Your task to perform on an android device: turn off data saver in the chrome app Image 0: 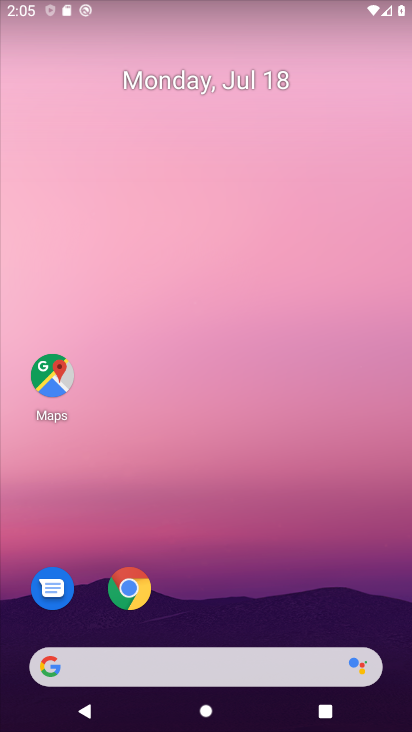
Step 0: drag from (255, 574) to (185, 147)
Your task to perform on an android device: turn off data saver in the chrome app Image 1: 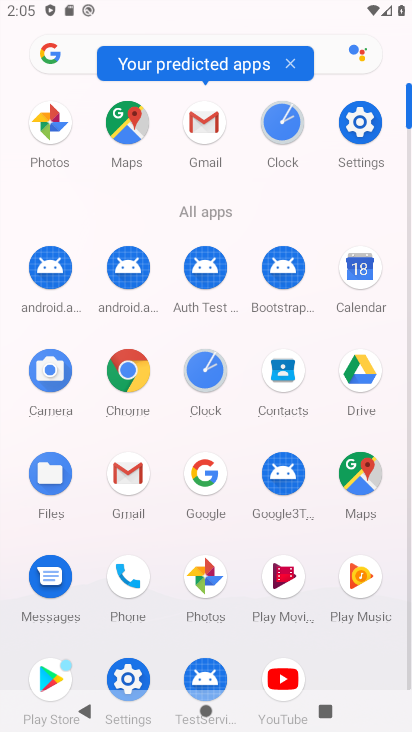
Step 1: click (128, 372)
Your task to perform on an android device: turn off data saver in the chrome app Image 2: 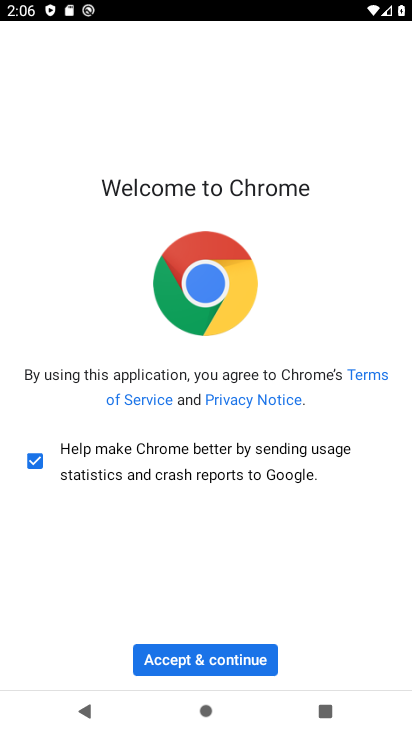
Step 2: click (259, 661)
Your task to perform on an android device: turn off data saver in the chrome app Image 3: 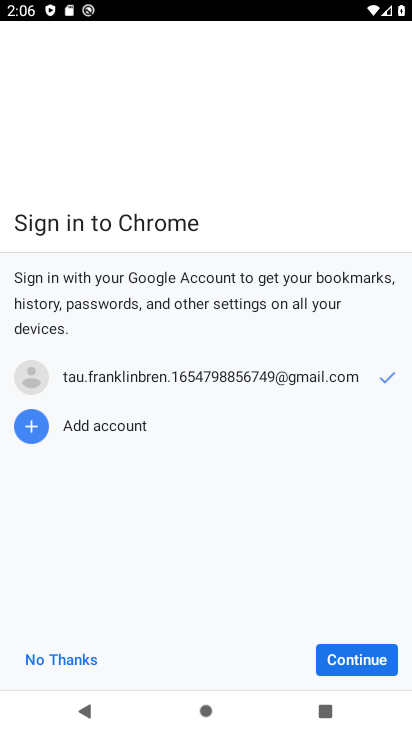
Step 3: click (357, 656)
Your task to perform on an android device: turn off data saver in the chrome app Image 4: 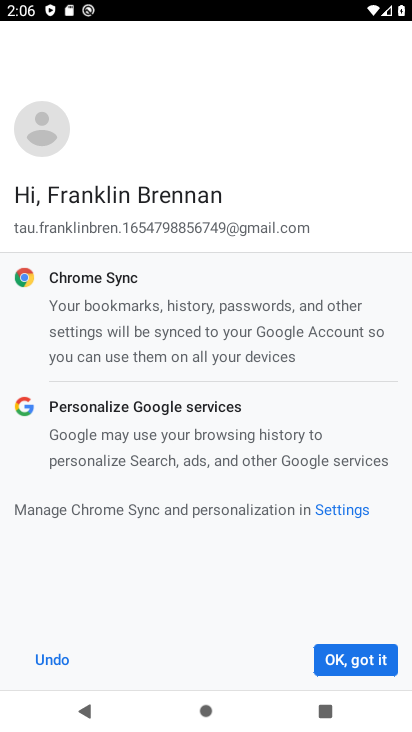
Step 4: click (366, 649)
Your task to perform on an android device: turn off data saver in the chrome app Image 5: 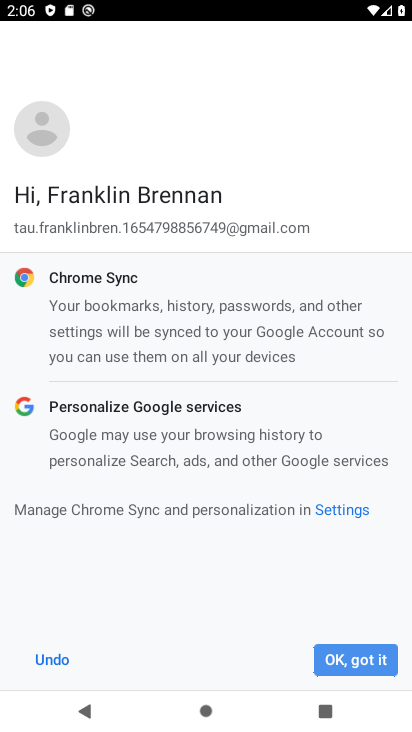
Step 5: click (366, 654)
Your task to perform on an android device: turn off data saver in the chrome app Image 6: 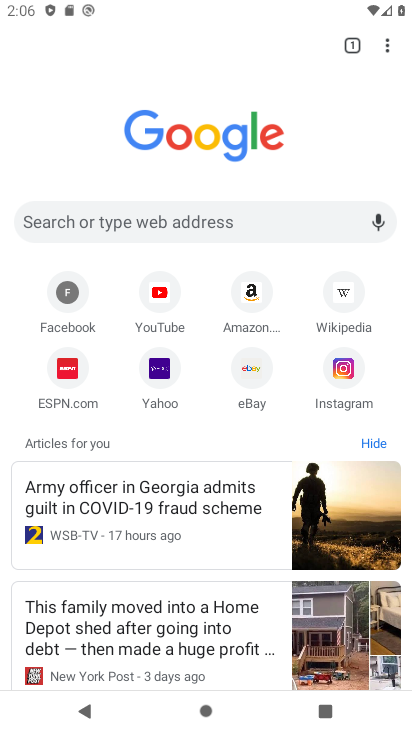
Step 6: drag from (389, 46) to (248, 387)
Your task to perform on an android device: turn off data saver in the chrome app Image 7: 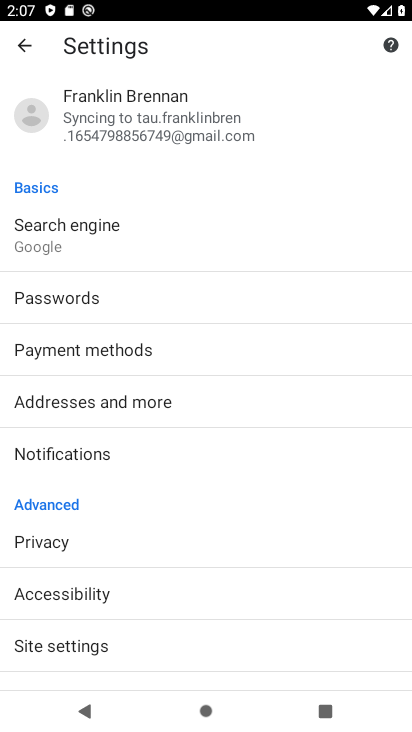
Step 7: drag from (214, 538) to (228, 124)
Your task to perform on an android device: turn off data saver in the chrome app Image 8: 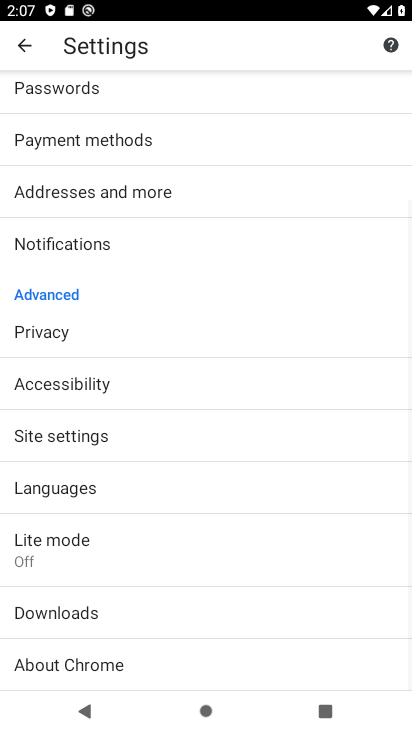
Step 8: click (93, 538)
Your task to perform on an android device: turn off data saver in the chrome app Image 9: 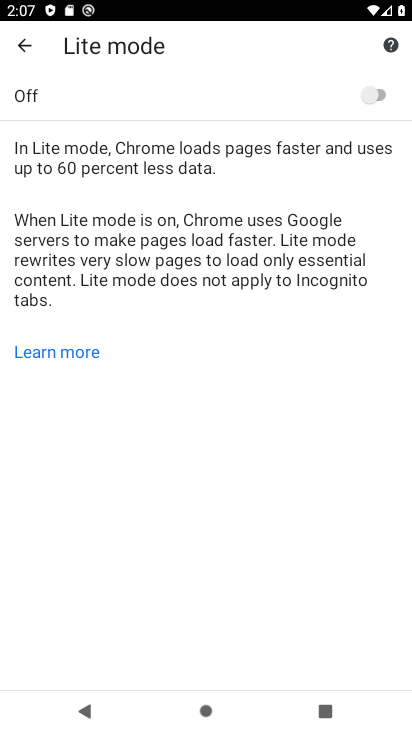
Step 9: task complete